Your task to perform on an android device: turn on showing notifications on the lock screen Image 0: 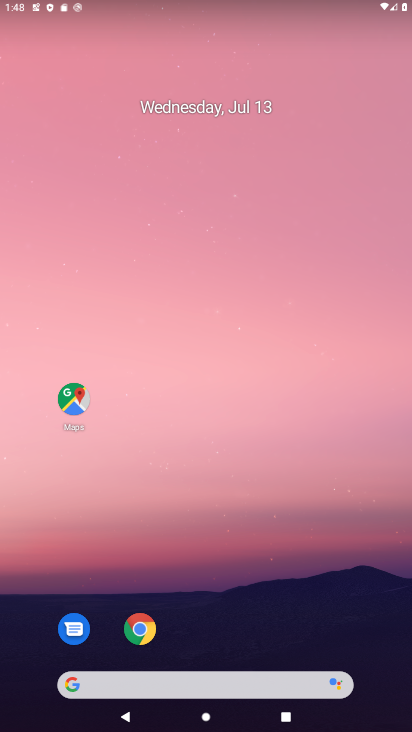
Step 0: drag from (185, 682) to (301, 129)
Your task to perform on an android device: turn on showing notifications on the lock screen Image 1: 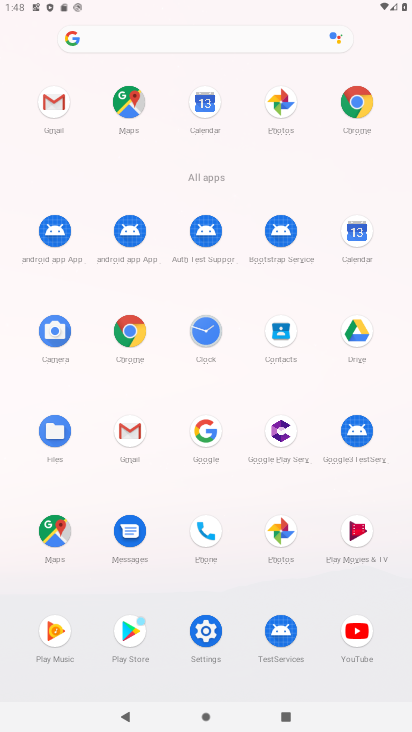
Step 1: click (204, 631)
Your task to perform on an android device: turn on showing notifications on the lock screen Image 2: 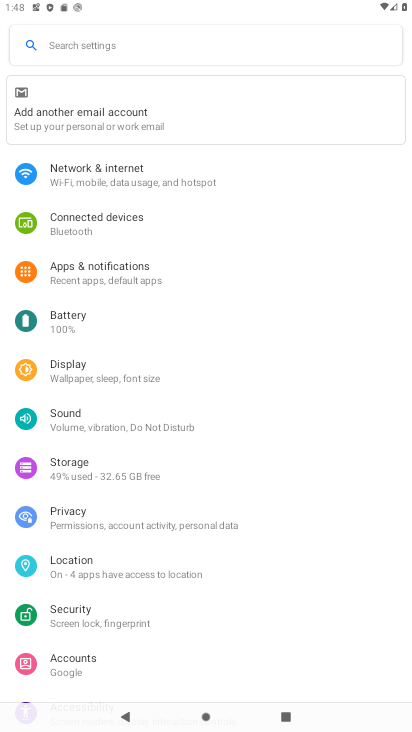
Step 2: click (101, 269)
Your task to perform on an android device: turn on showing notifications on the lock screen Image 3: 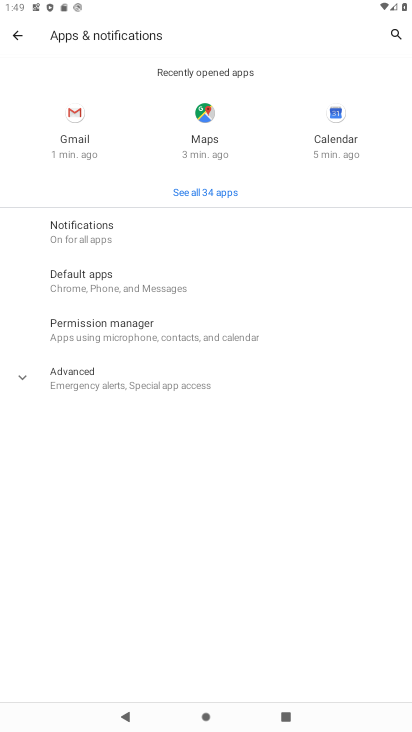
Step 3: click (90, 227)
Your task to perform on an android device: turn on showing notifications on the lock screen Image 4: 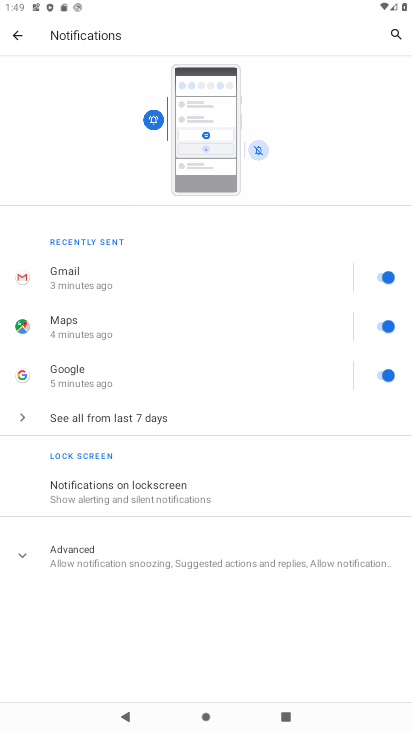
Step 4: click (100, 488)
Your task to perform on an android device: turn on showing notifications on the lock screen Image 5: 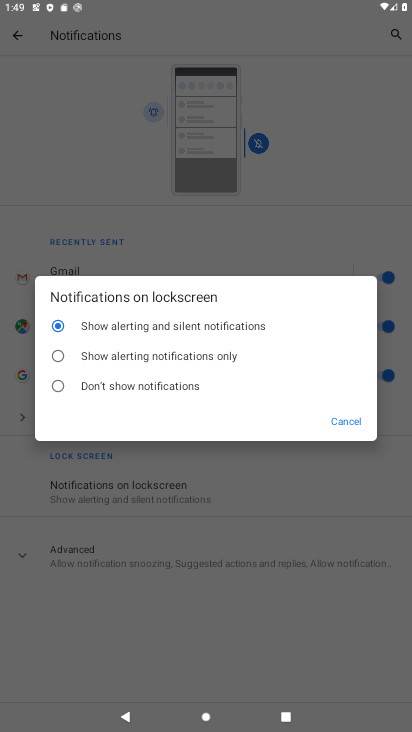
Step 5: click (56, 327)
Your task to perform on an android device: turn on showing notifications on the lock screen Image 6: 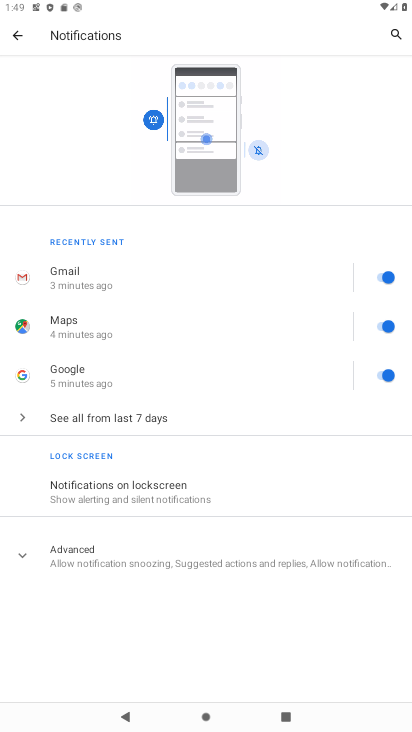
Step 6: task complete